Your task to perform on an android device: Check the latest 3D printers on Target. Image 0: 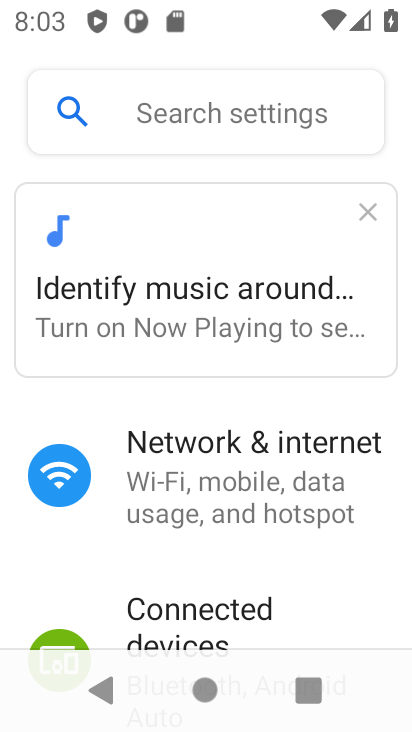
Step 0: press home button
Your task to perform on an android device: Check the latest 3D printers on Target. Image 1: 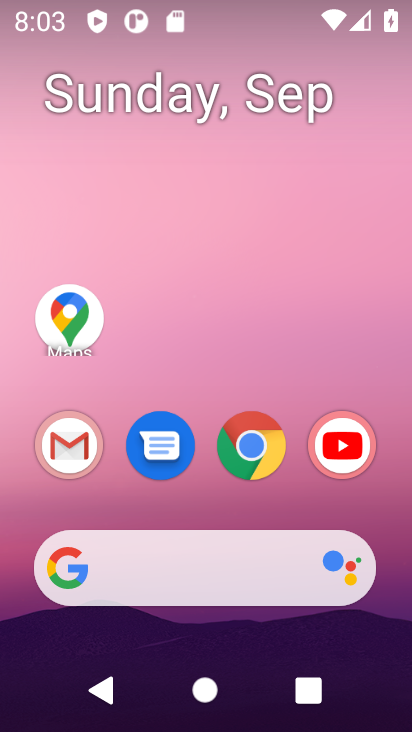
Step 1: click (269, 100)
Your task to perform on an android device: Check the latest 3D printers on Target. Image 2: 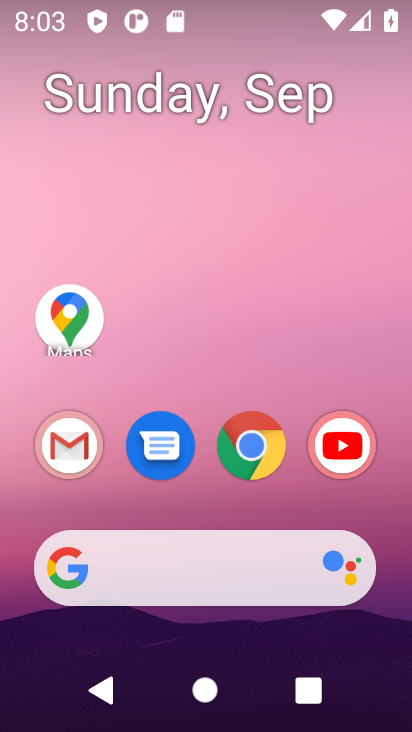
Step 2: drag from (253, 302) to (265, 138)
Your task to perform on an android device: Check the latest 3D printers on Target. Image 3: 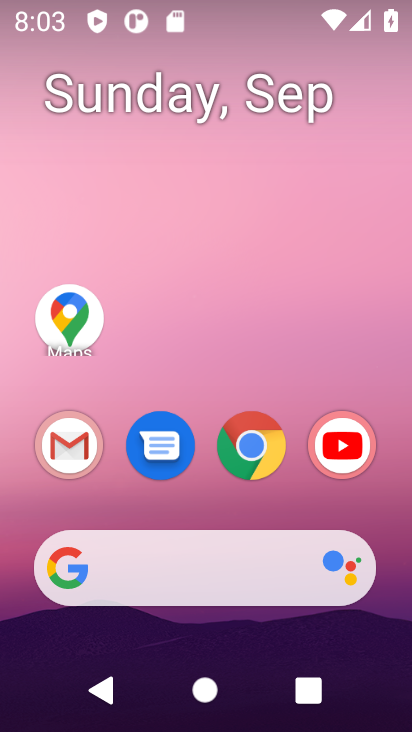
Step 3: click (254, 448)
Your task to perform on an android device: Check the latest 3D printers on Target. Image 4: 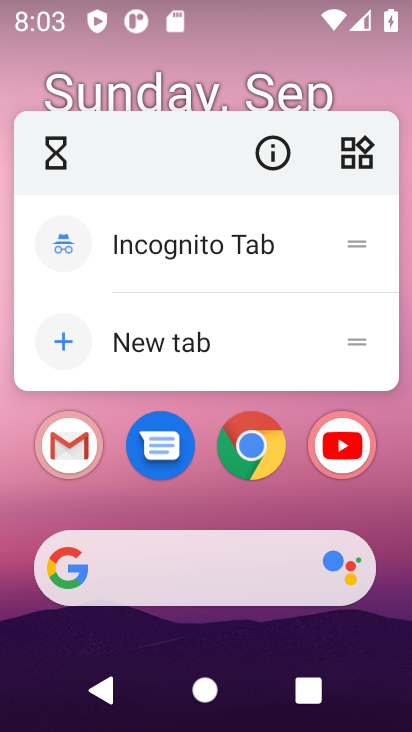
Step 4: click (254, 447)
Your task to perform on an android device: Check the latest 3D printers on Target. Image 5: 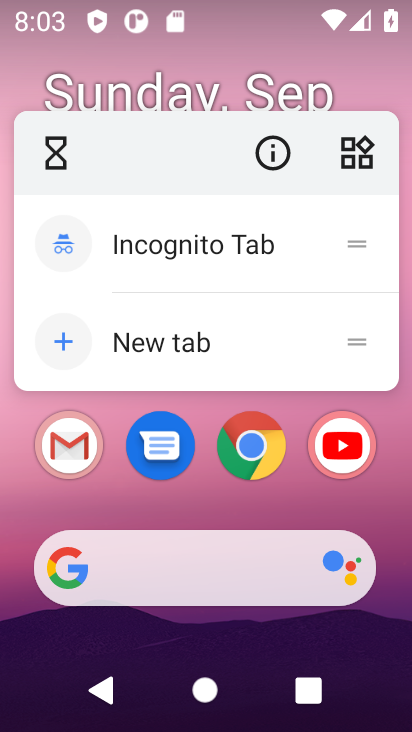
Step 5: click (254, 447)
Your task to perform on an android device: Check the latest 3D printers on Target. Image 6: 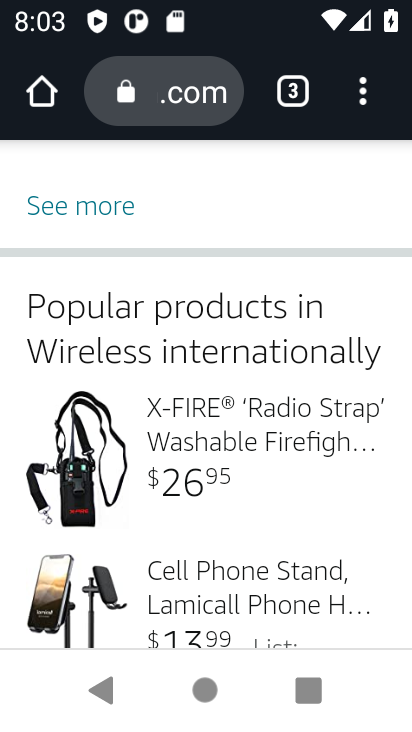
Step 6: drag from (225, 132) to (205, 445)
Your task to perform on an android device: Check the latest 3D printers on Target. Image 7: 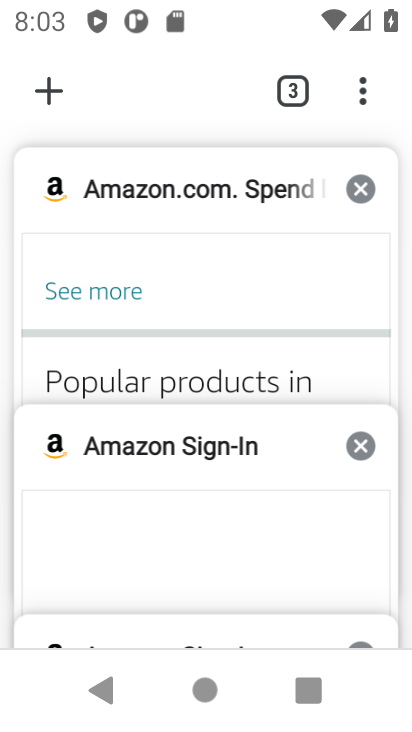
Step 7: click (199, 424)
Your task to perform on an android device: Check the latest 3D printers on Target. Image 8: 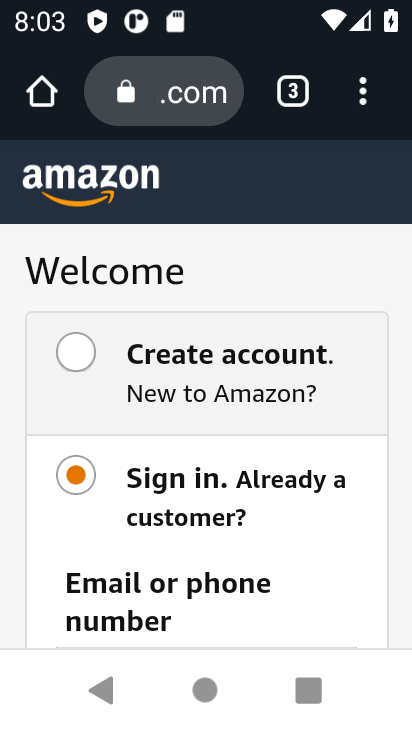
Step 8: click (164, 104)
Your task to perform on an android device: Check the latest 3D printers on Target. Image 9: 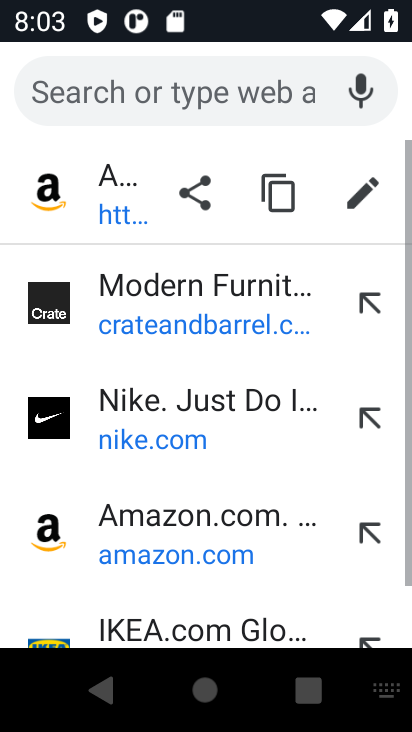
Step 9: type ""
Your task to perform on an android device: Check the latest 3D printers on Target. Image 10: 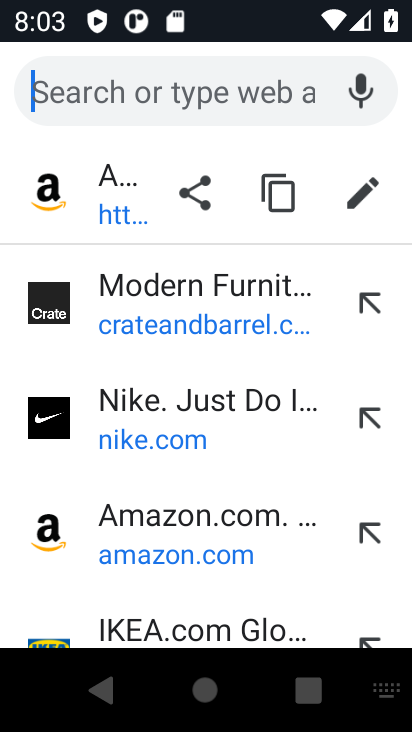
Step 10: press enter
Your task to perform on an android device: Check the latest 3D printers on Target. Image 11: 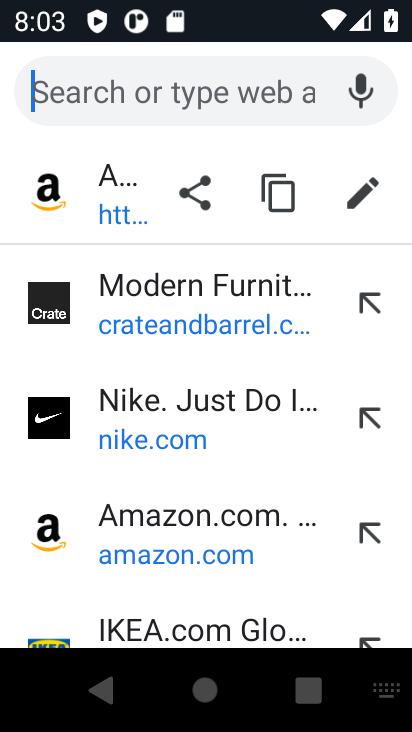
Step 11: type "Target"
Your task to perform on an android device: Check the latest 3D printers on Target. Image 12: 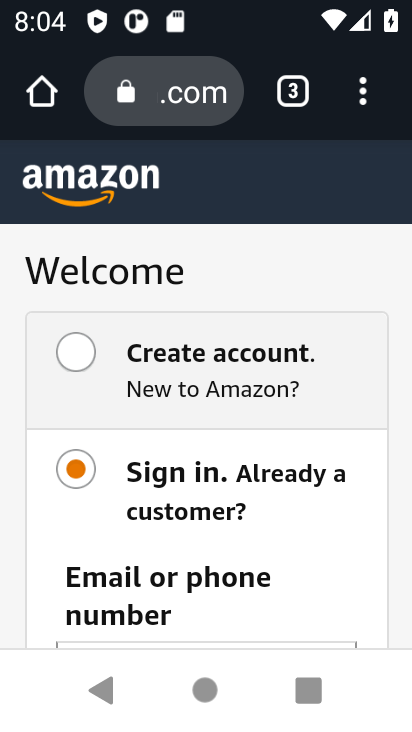
Step 12: click (157, 104)
Your task to perform on an android device: Check the latest 3D printers on Target. Image 13: 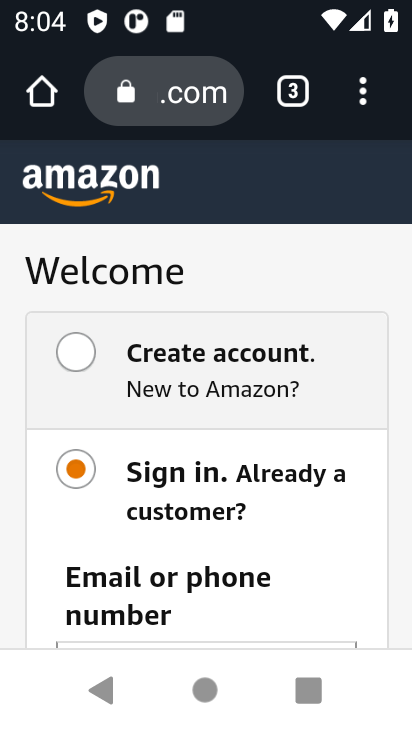
Step 13: click (155, 101)
Your task to perform on an android device: Check the latest 3D printers on Target. Image 14: 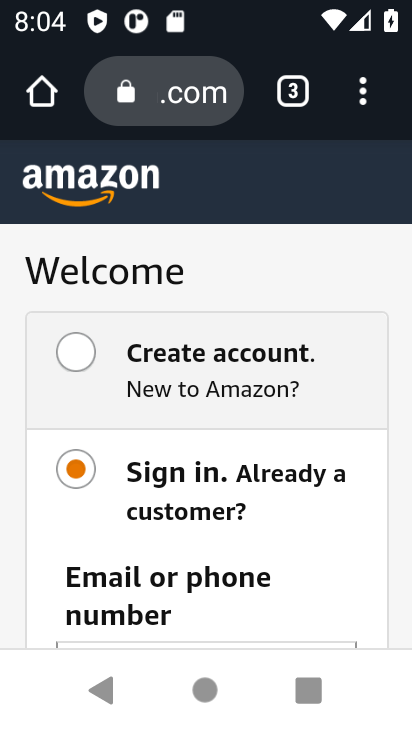
Step 14: click (155, 98)
Your task to perform on an android device: Check the latest 3D printers on Target. Image 15: 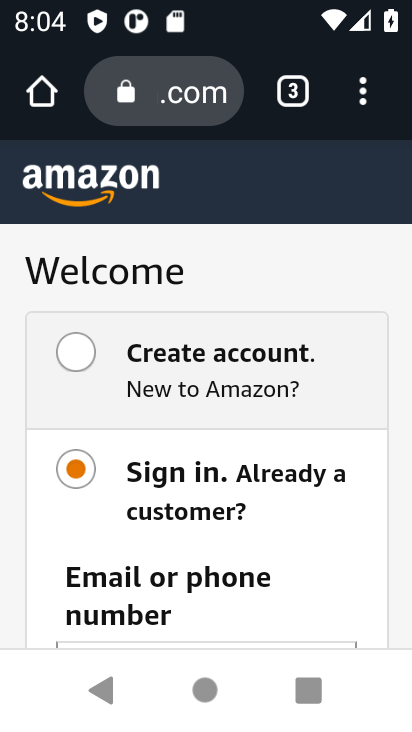
Step 15: click (164, 113)
Your task to perform on an android device: Check the latest 3D printers on Target. Image 16: 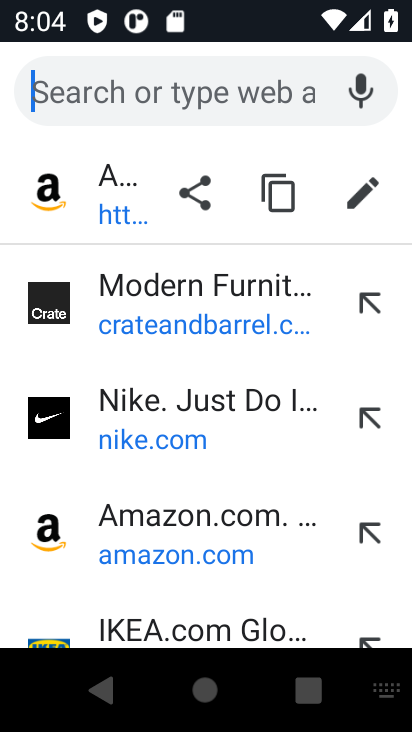
Step 16: press enter
Your task to perform on an android device: Check the latest 3D printers on Target. Image 17: 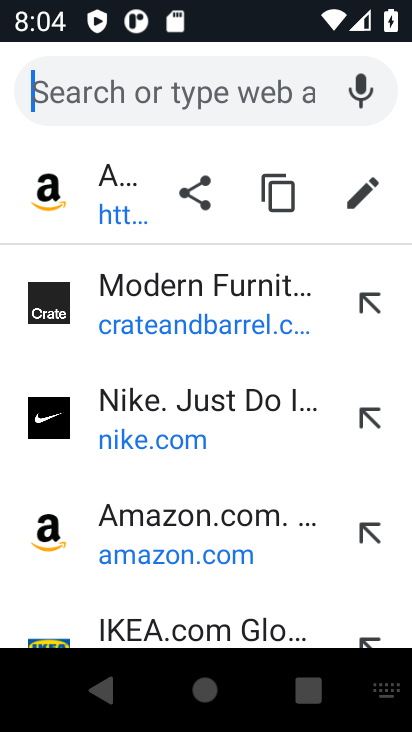
Step 17: type "Target"
Your task to perform on an android device: Check the latest 3D printers on Target. Image 18: 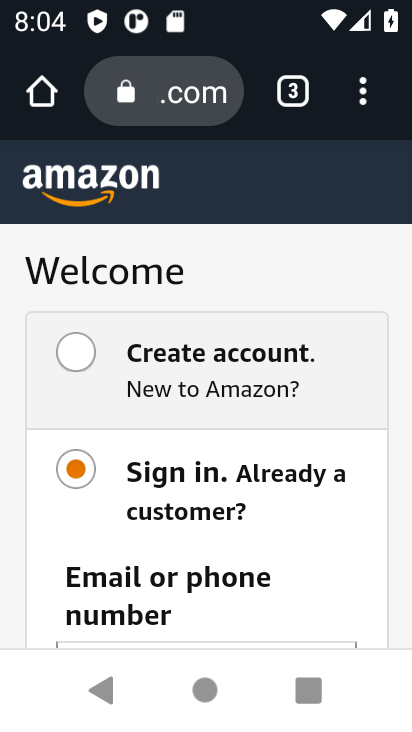
Step 18: press enter
Your task to perform on an android device: Check the latest 3D printers on Target. Image 19: 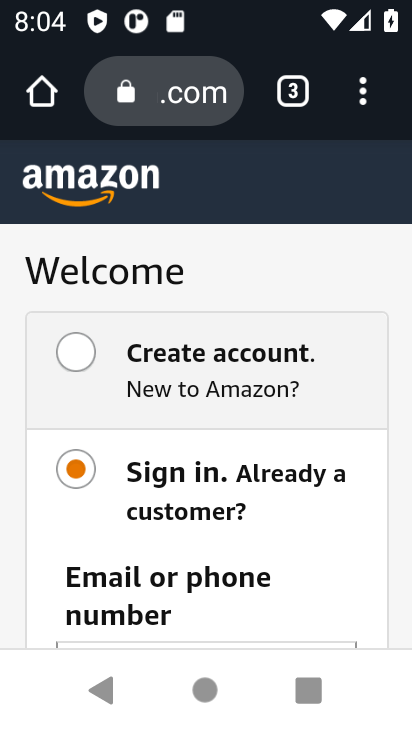
Step 19: click (193, 87)
Your task to perform on an android device: Check the latest 3D printers on Target. Image 20: 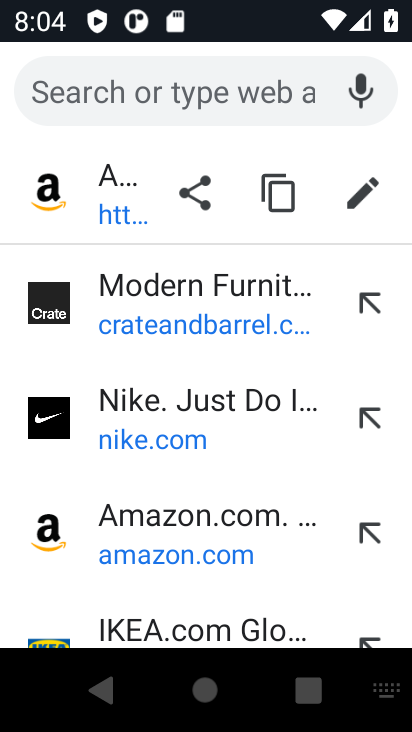
Step 20: type "Target"
Your task to perform on an android device: Check the latest 3D printers on Target. Image 21: 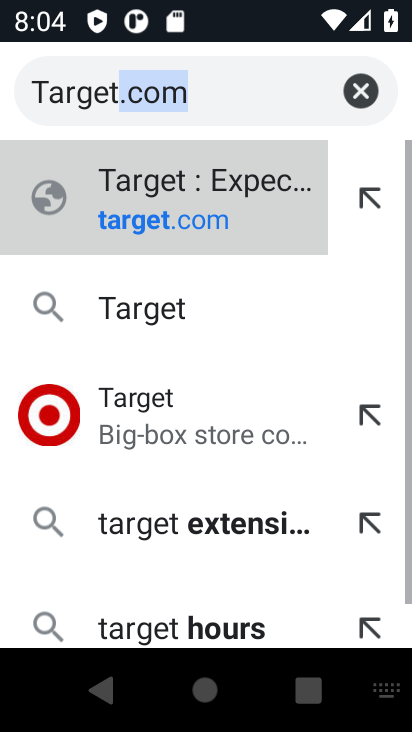
Step 21: press enter
Your task to perform on an android device: Check the latest 3D printers on Target. Image 22: 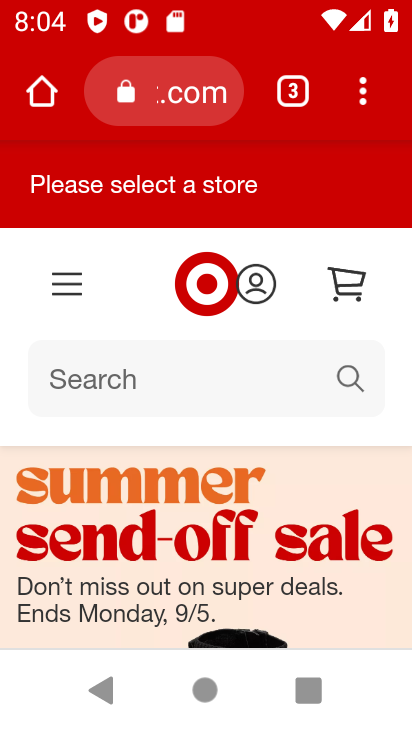
Step 22: click (340, 387)
Your task to perform on an android device: Check the latest 3D printers on Target. Image 23: 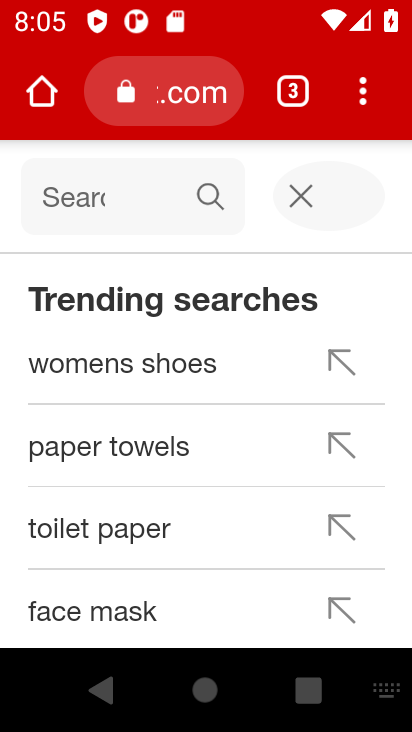
Step 23: press enter
Your task to perform on an android device: Check the latest 3D printers on Target. Image 24: 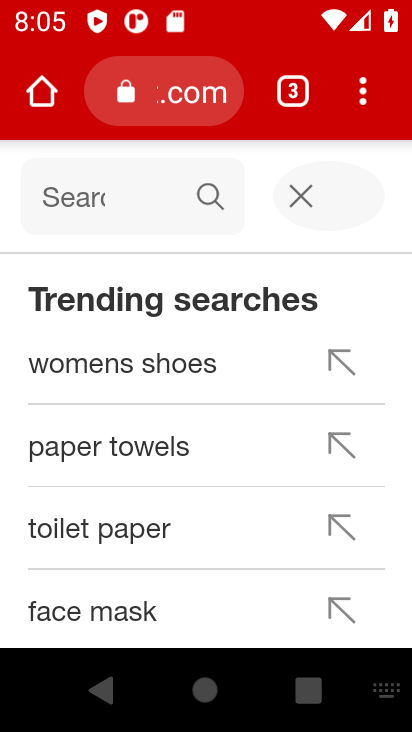
Step 24: type "atest 3D printers"
Your task to perform on an android device: Check the latest 3D printers on Target. Image 25: 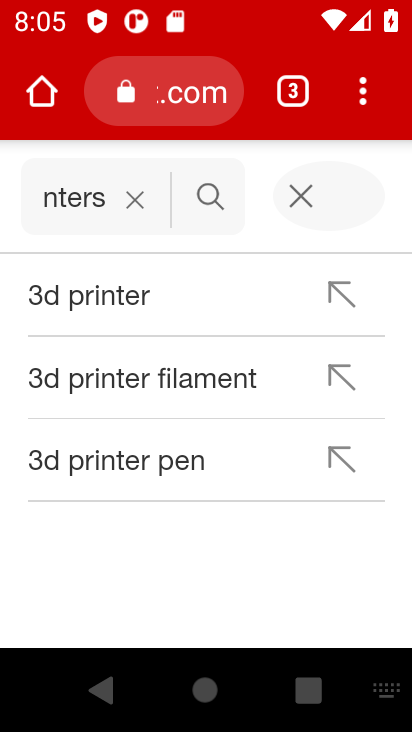
Step 25: press enter
Your task to perform on an android device: Check the latest 3D printers on Target. Image 26: 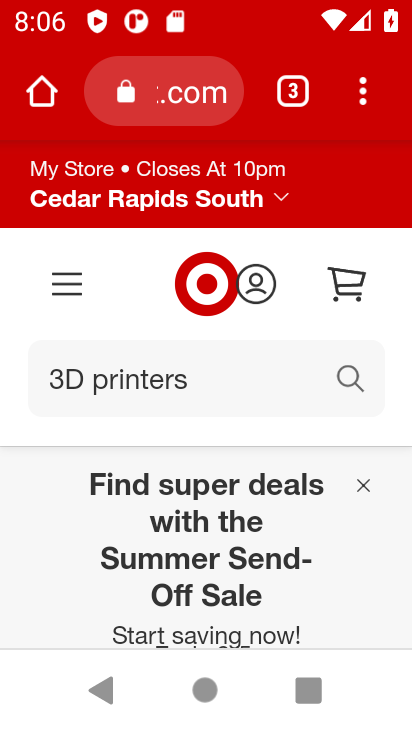
Step 26: task complete